Your task to perform on an android device: Turn off the flashlight Image 0: 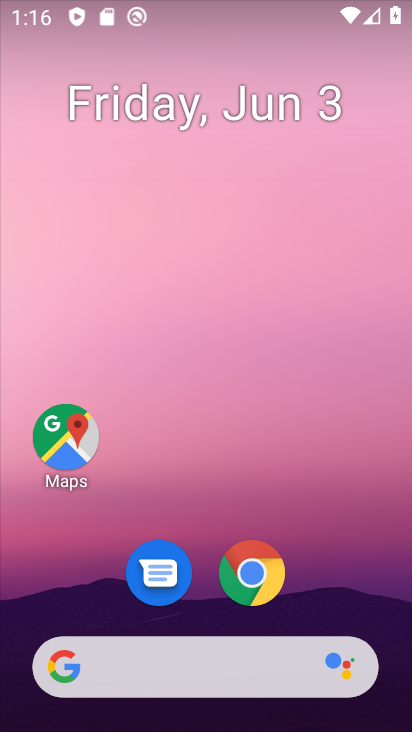
Step 0: task complete